Your task to perform on an android device: Open location settings Image 0: 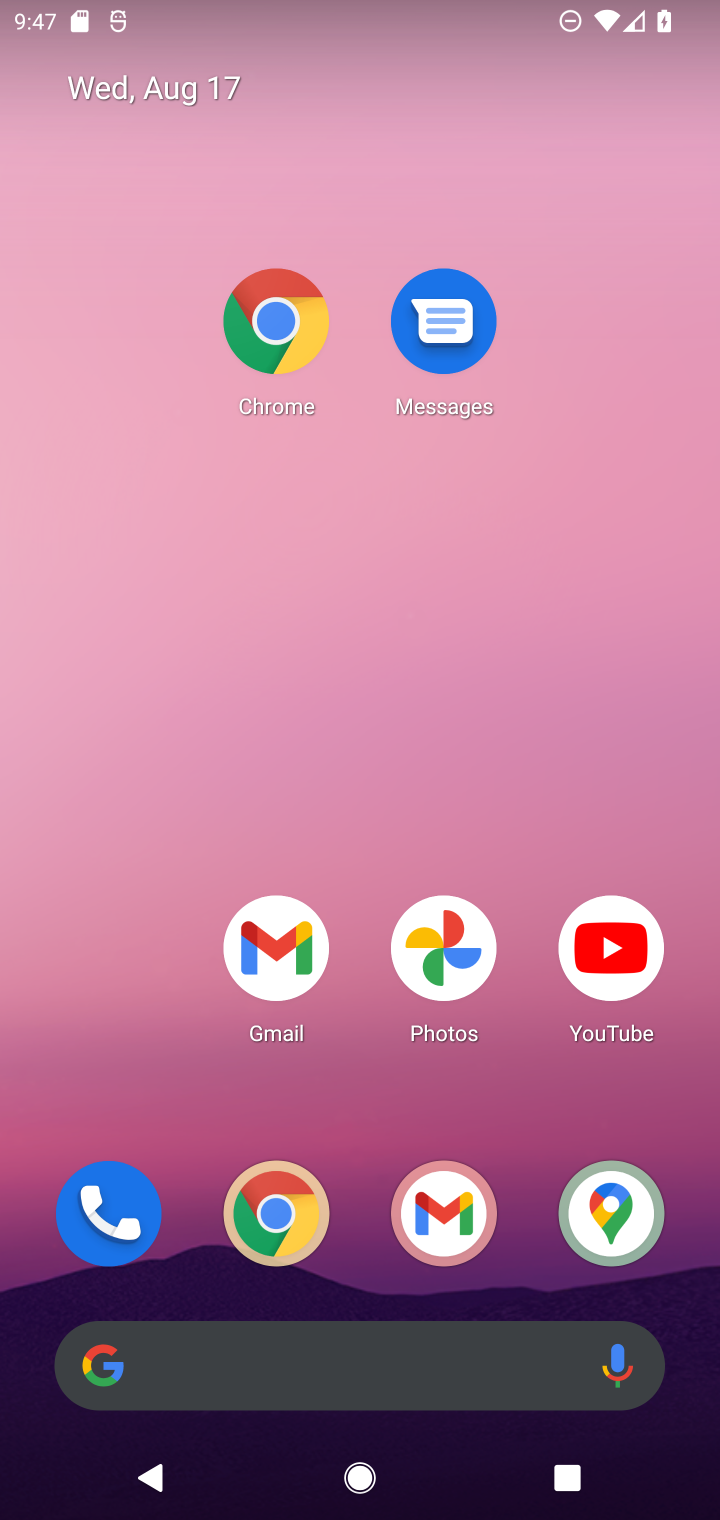
Step 0: drag from (404, 741) to (417, 239)
Your task to perform on an android device: Open location settings Image 1: 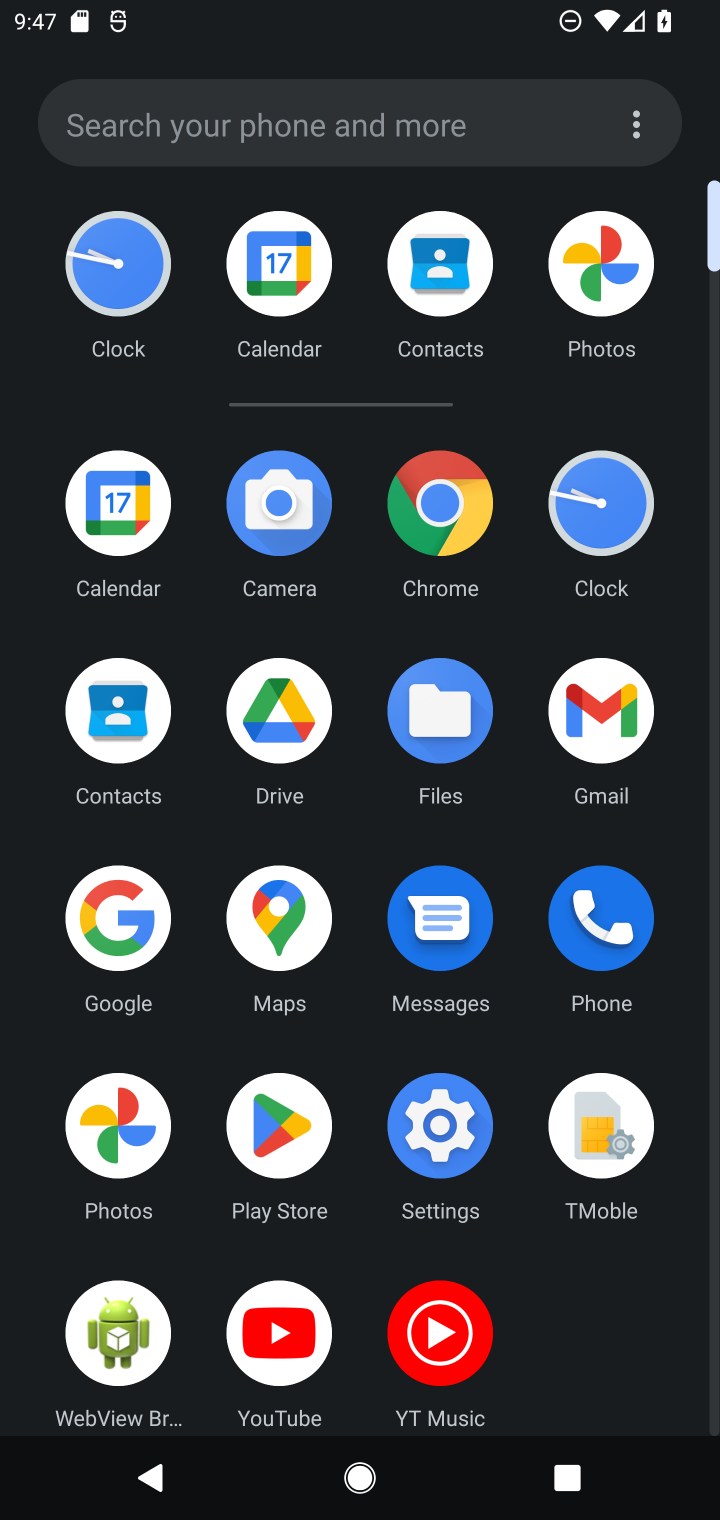
Step 1: click (475, 1114)
Your task to perform on an android device: Open location settings Image 2: 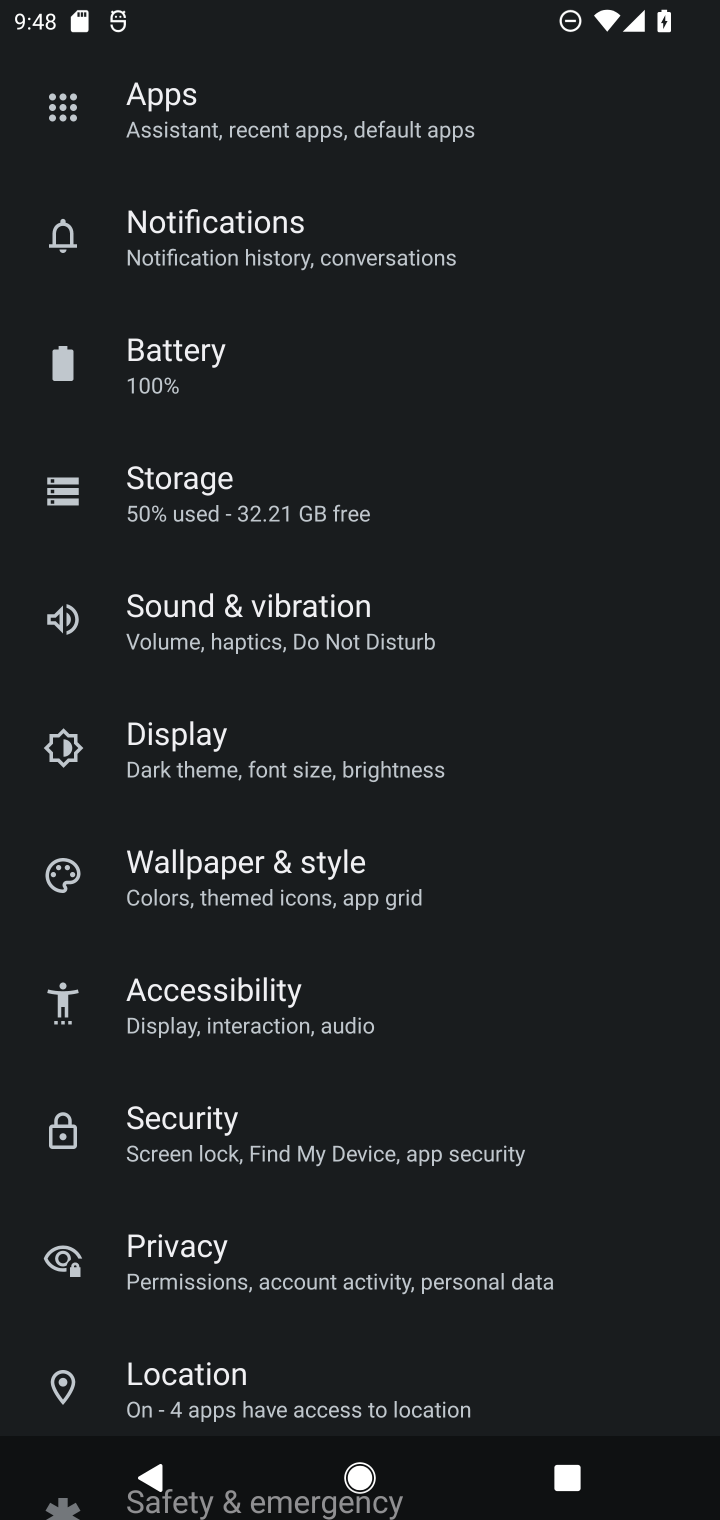
Step 2: click (294, 1359)
Your task to perform on an android device: Open location settings Image 3: 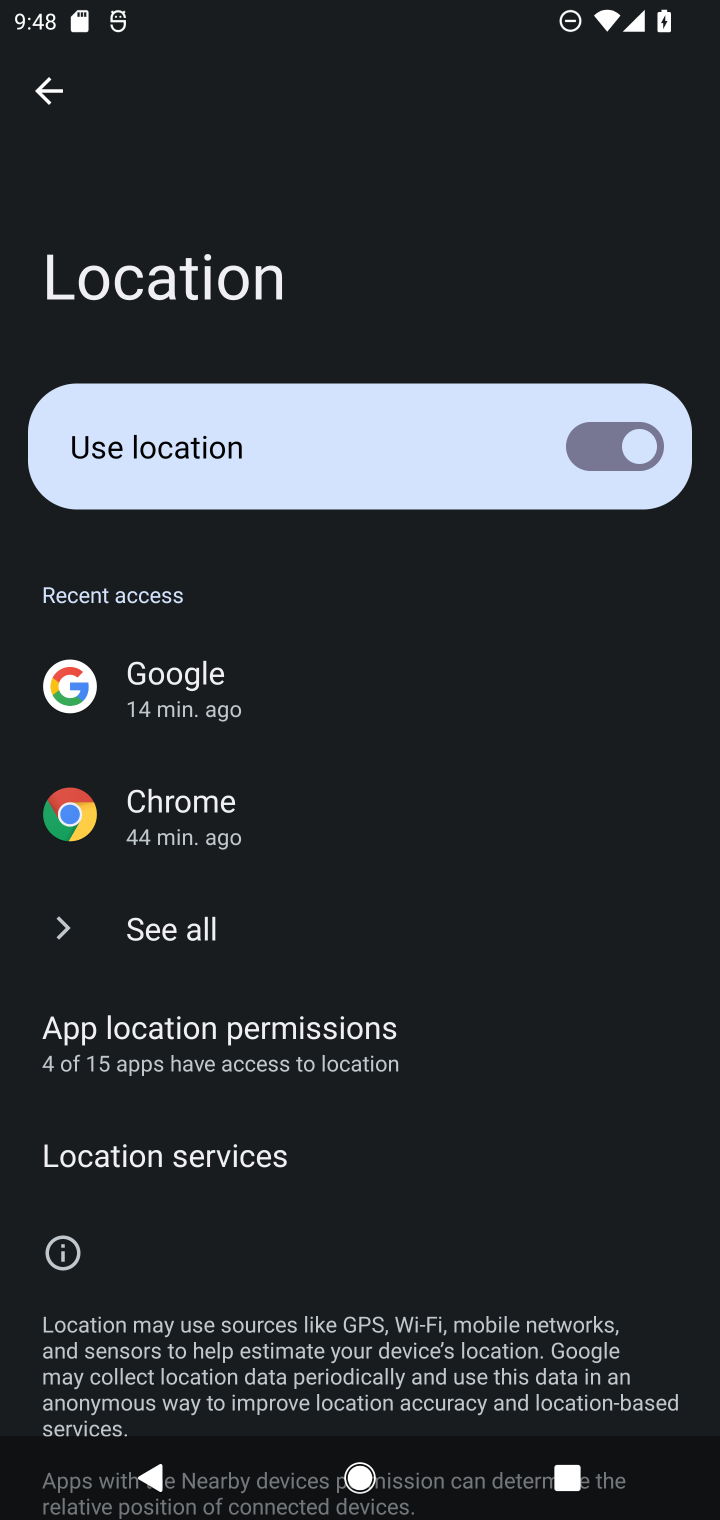
Step 3: task complete